Your task to perform on an android device: Clear all items from cart on costco. Add "razer thresher" to the cart on costco, then select checkout. Image 0: 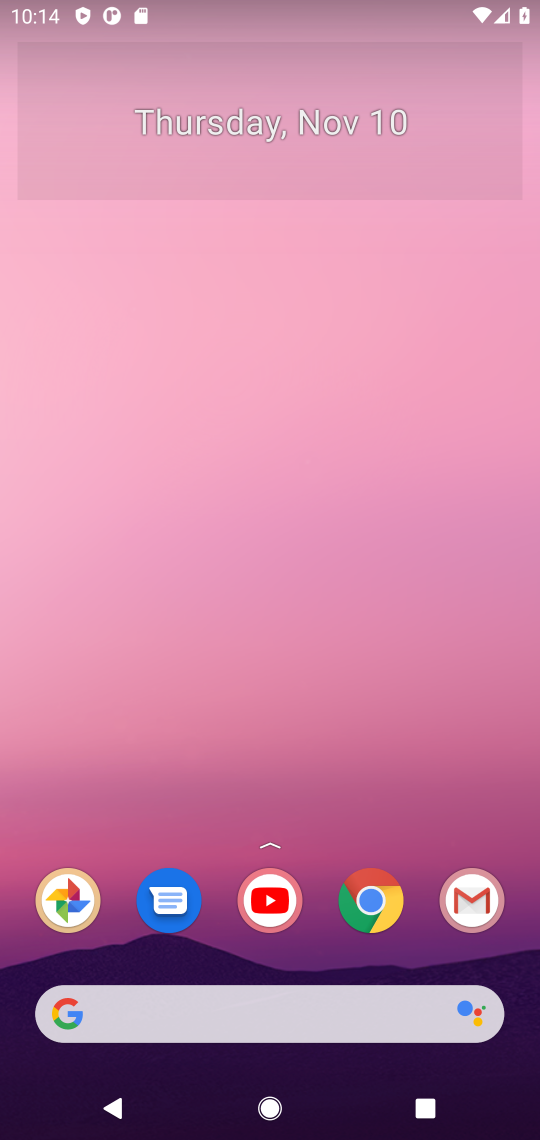
Step 0: click (365, 900)
Your task to perform on an android device: Clear all items from cart on costco. Add "razer thresher" to the cart on costco, then select checkout. Image 1: 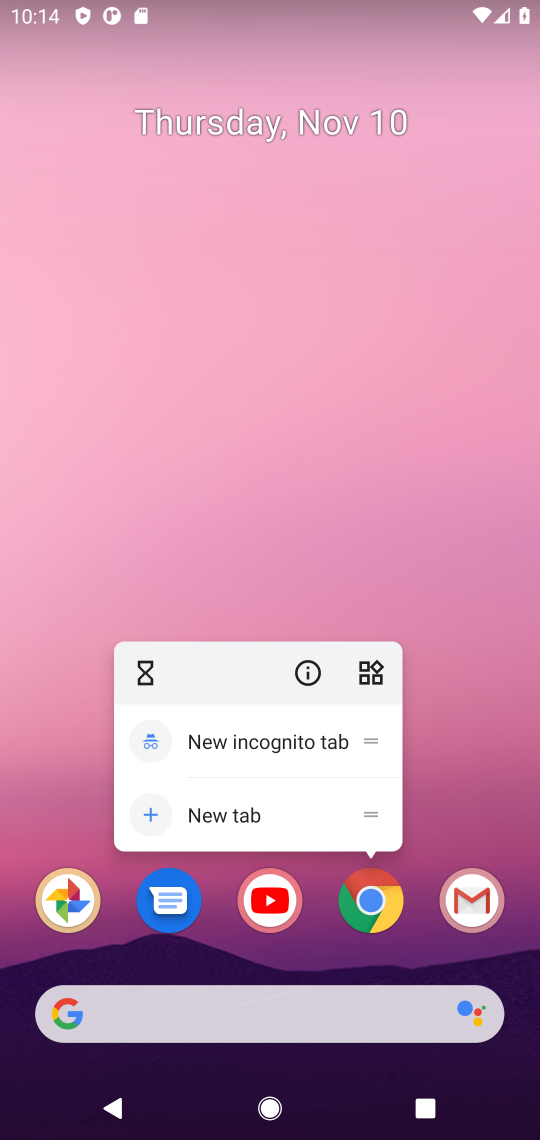
Step 1: click (368, 902)
Your task to perform on an android device: Clear all items from cart on costco. Add "razer thresher" to the cart on costco, then select checkout. Image 2: 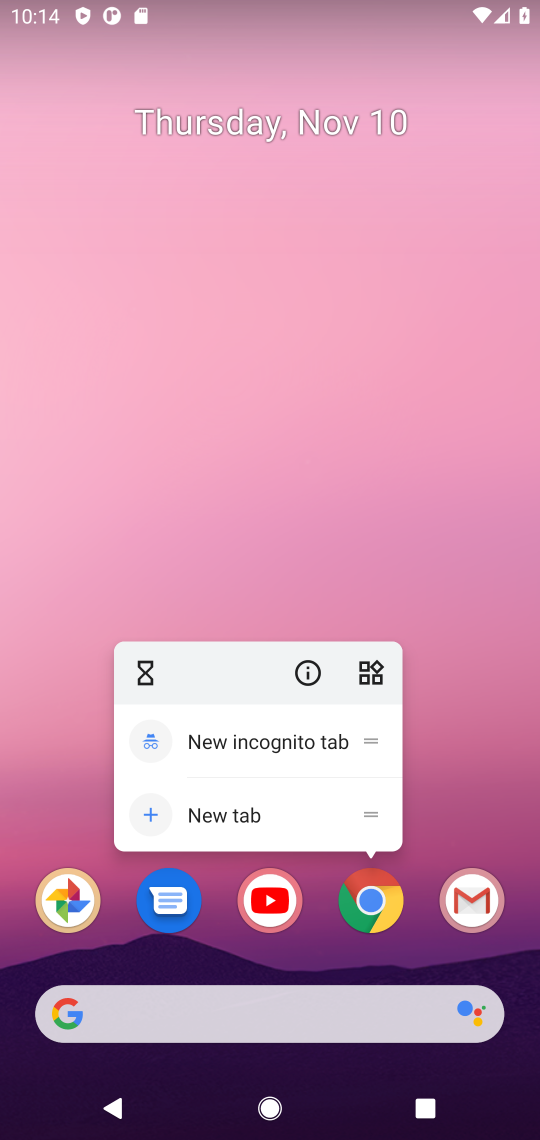
Step 2: click (376, 907)
Your task to perform on an android device: Clear all items from cart on costco. Add "razer thresher" to the cart on costco, then select checkout. Image 3: 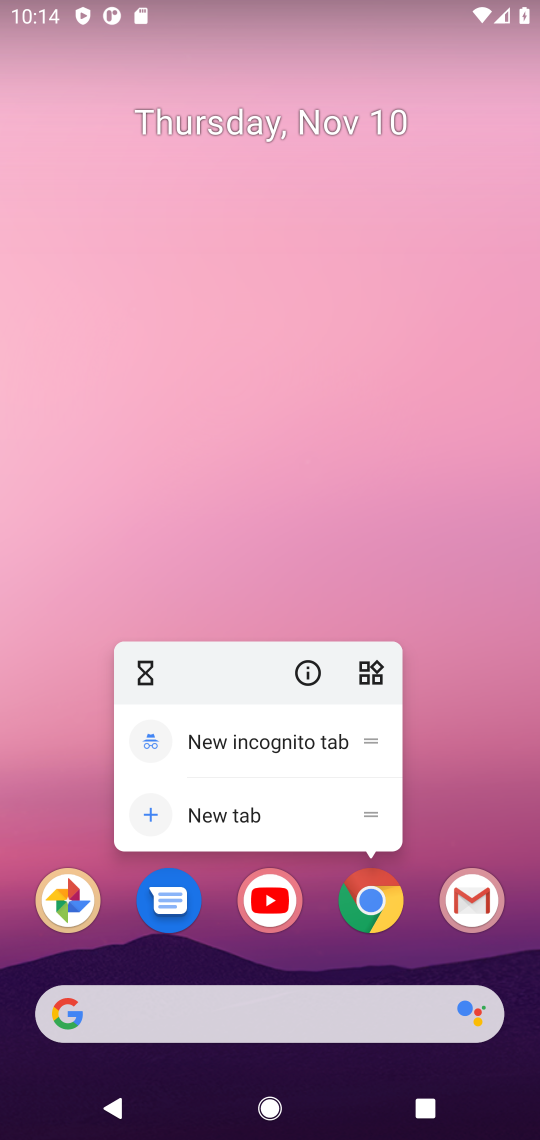
Step 3: click (376, 907)
Your task to perform on an android device: Clear all items from cart on costco. Add "razer thresher" to the cart on costco, then select checkout. Image 4: 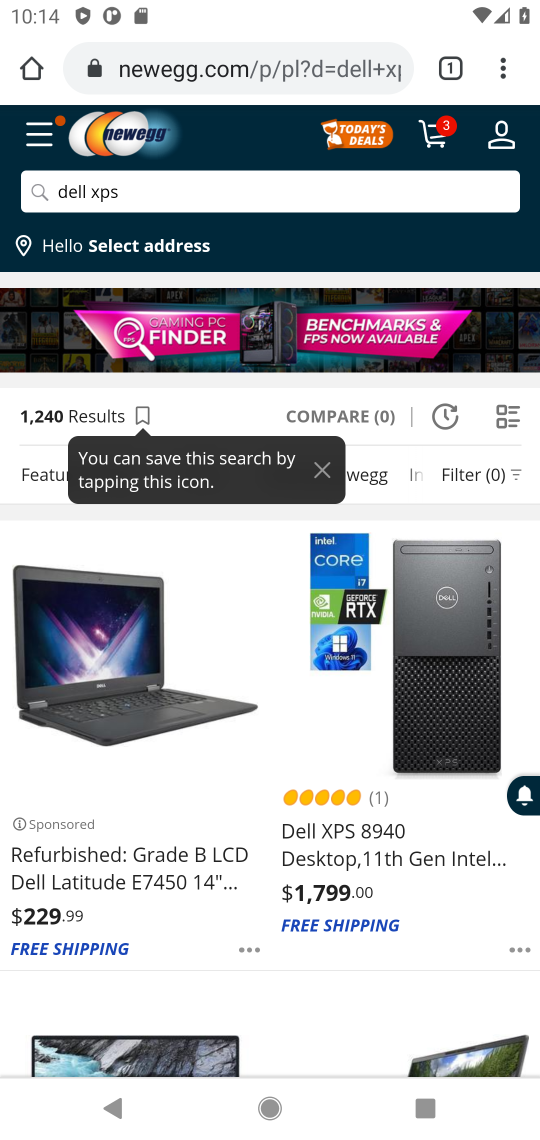
Step 4: click (272, 55)
Your task to perform on an android device: Clear all items from cart on costco. Add "razer thresher" to the cart on costco, then select checkout. Image 5: 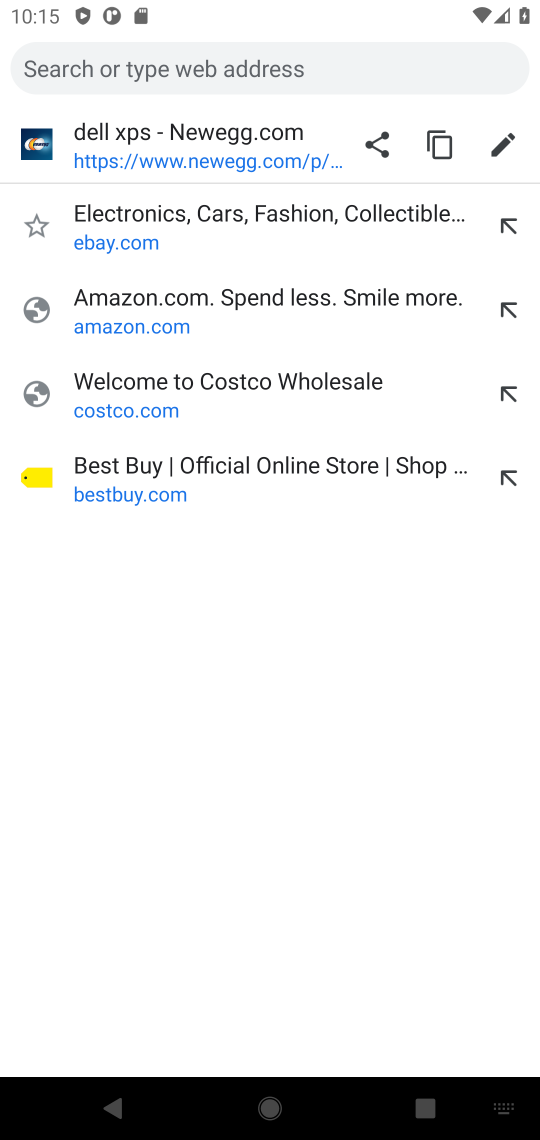
Step 5: click (121, 400)
Your task to perform on an android device: Clear all items from cart on costco. Add "razer thresher" to the cart on costco, then select checkout. Image 6: 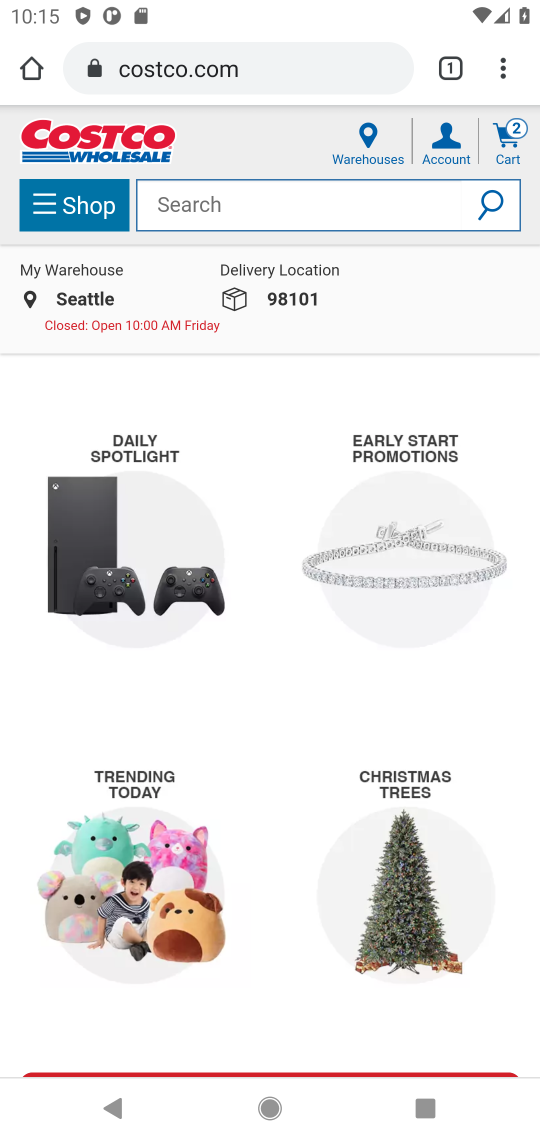
Step 6: click (512, 128)
Your task to perform on an android device: Clear all items from cart on costco. Add "razer thresher" to the cart on costco, then select checkout. Image 7: 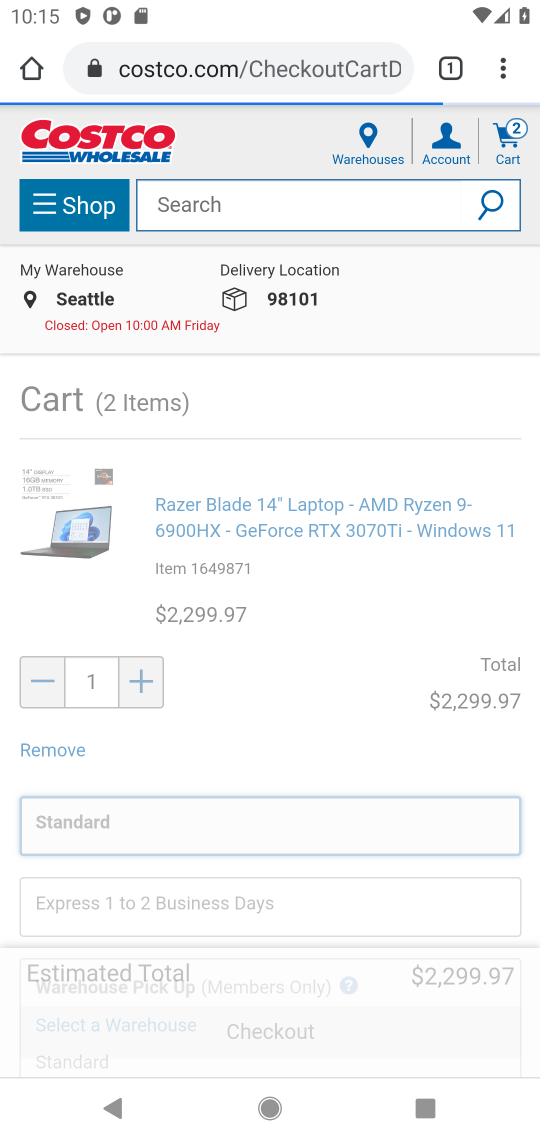
Step 7: drag from (184, 692) to (369, 277)
Your task to perform on an android device: Clear all items from cart on costco. Add "razer thresher" to the cart on costco, then select checkout. Image 8: 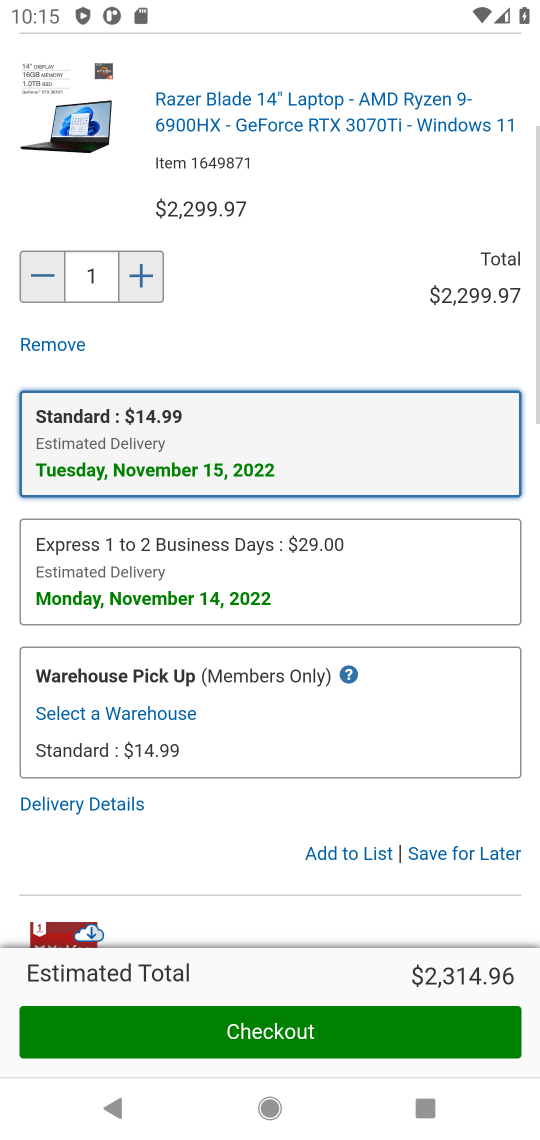
Step 8: drag from (329, 876) to (466, 267)
Your task to perform on an android device: Clear all items from cart on costco. Add "razer thresher" to the cart on costco, then select checkout. Image 9: 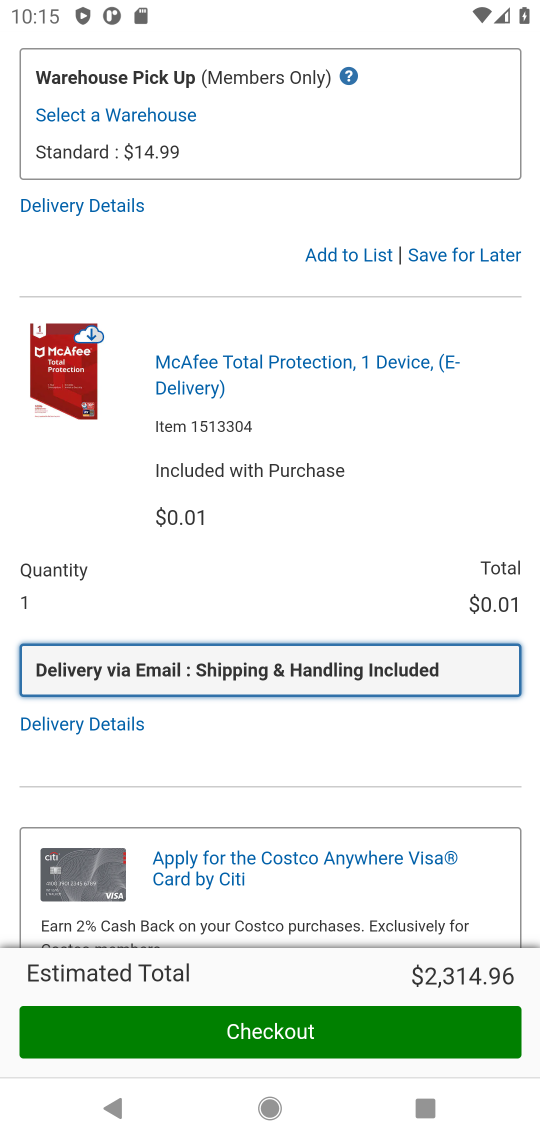
Step 9: drag from (296, 894) to (366, 673)
Your task to perform on an android device: Clear all items from cart on costco. Add "razer thresher" to the cart on costco, then select checkout. Image 10: 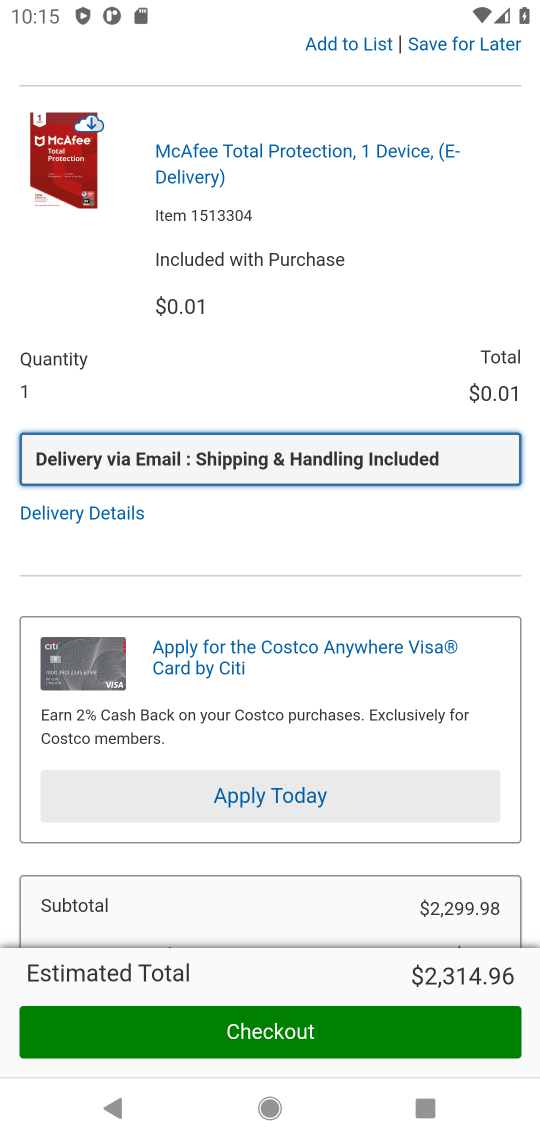
Step 10: click (460, 42)
Your task to perform on an android device: Clear all items from cart on costco. Add "razer thresher" to the cart on costco, then select checkout. Image 11: 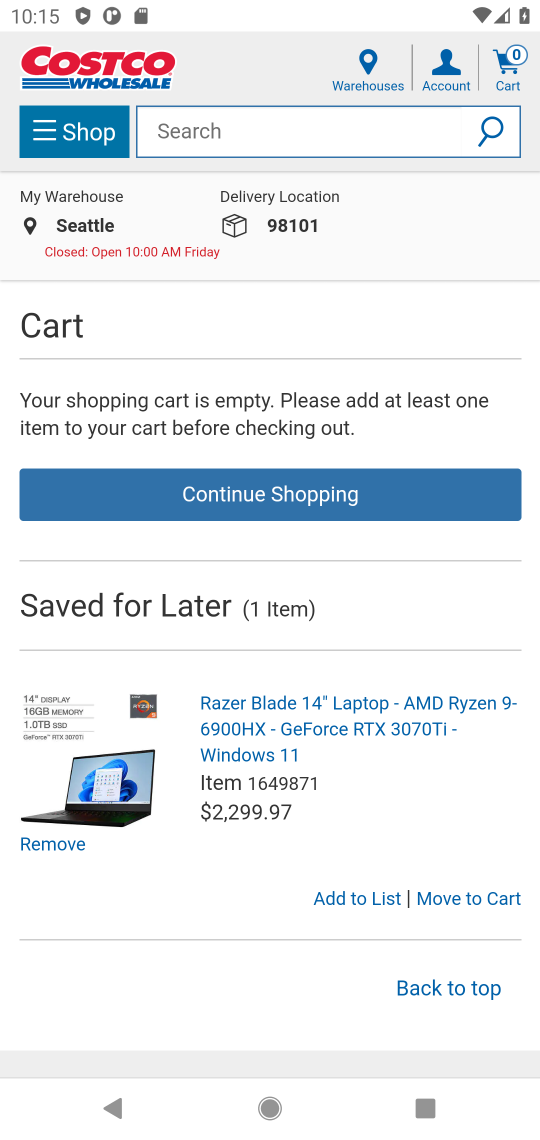
Step 11: click (270, 129)
Your task to perform on an android device: Clear all items from cart on costco. Add "razer thresher" to the cart on costco, then select checkout. Image 12: 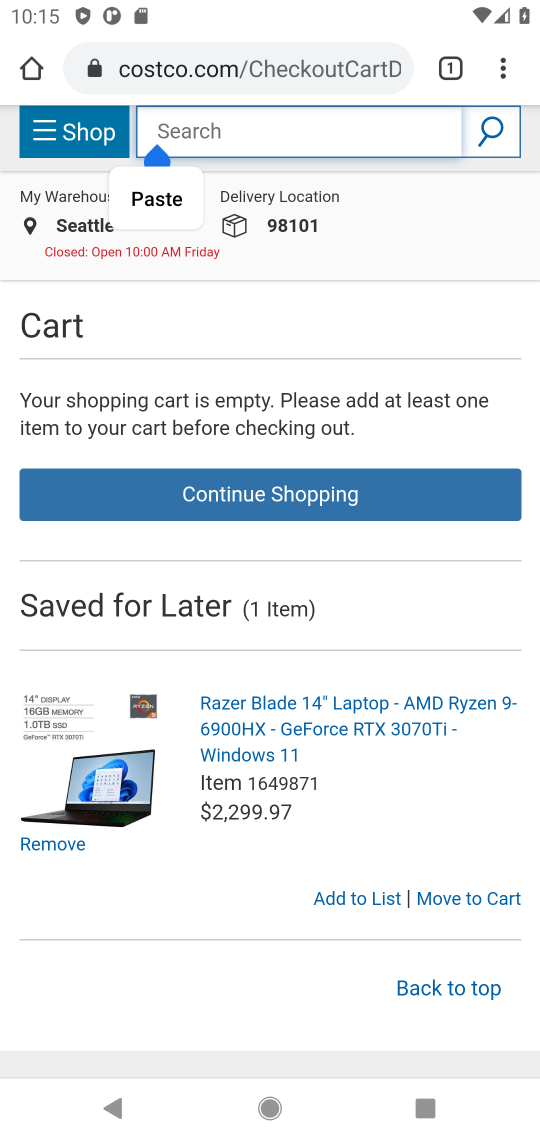
Step 12: type "razer thresher"
Your task to perform on an android device: Clear all items from cart on costco. Add "razer thresher" to the cart on costco, then select checkout. Image 13: 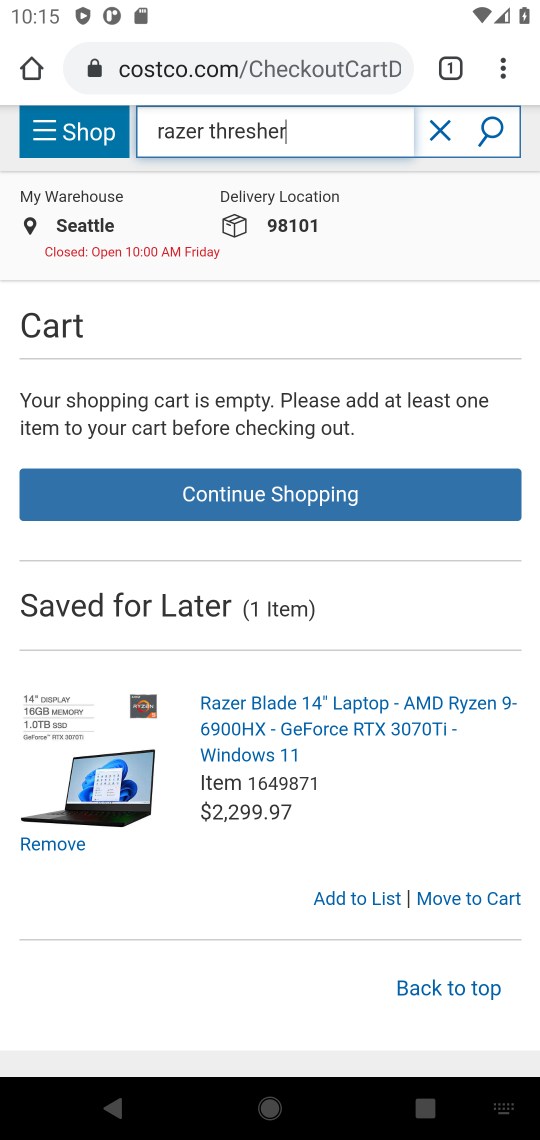
Step 13: press enter
Your task to perform on an android device: Clear all items from cart on costco. Add "razer thresher" to the cart on costco, then select checkout. Image 14: 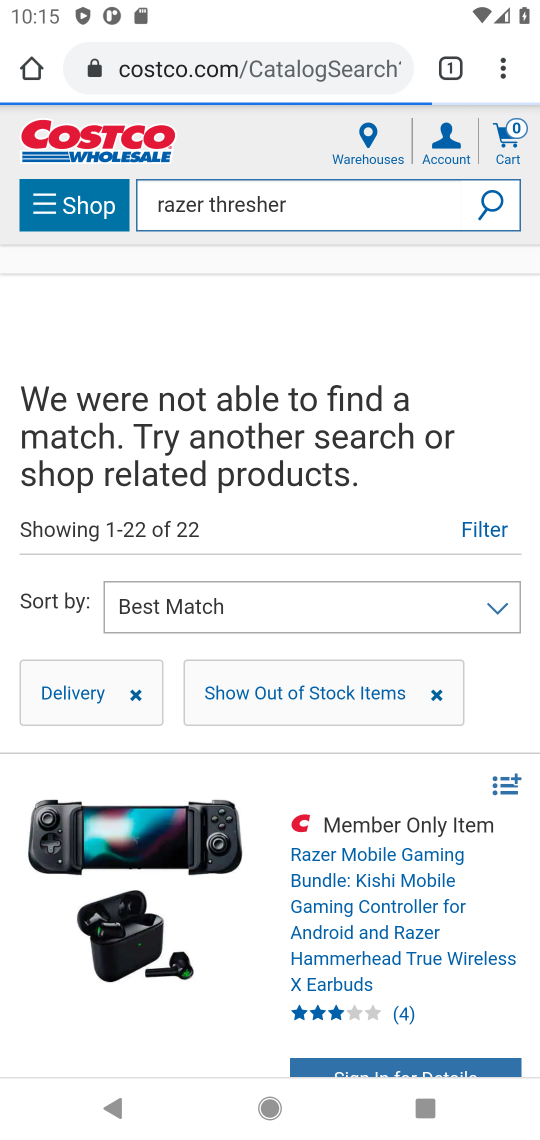
Step 14: task complete